Your task to perform on an android device: Go to Amazon Image 0: 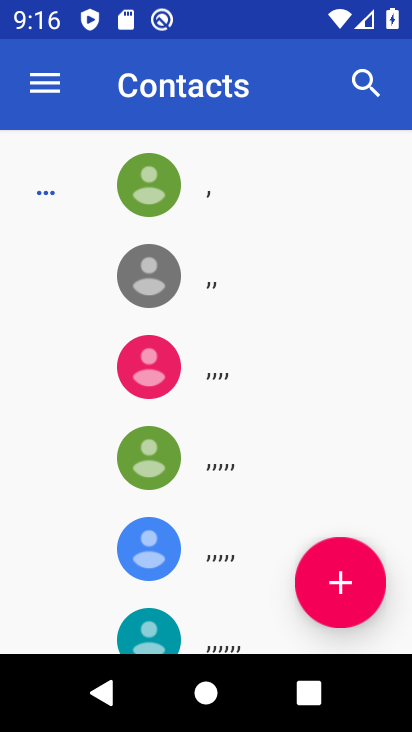
Step 0: press home button
Your task to perform on an android device: Go to Amazon Image 1: 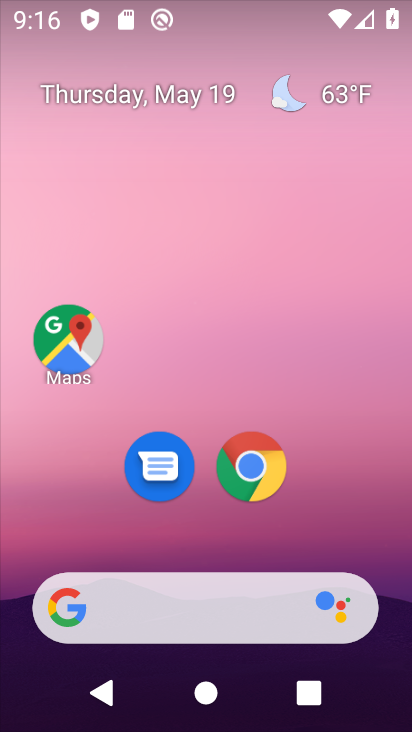
Step 1: drag from (388, 601) to (246, 3)
Your task to perform on an android device: Go to Amazon Image 2: 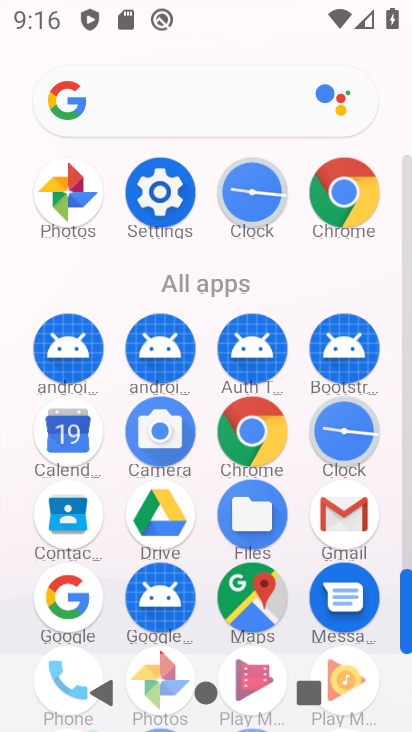
Step 2: click (350, 201)
Your task to perform on an android device: Go to Amazon Image 3: 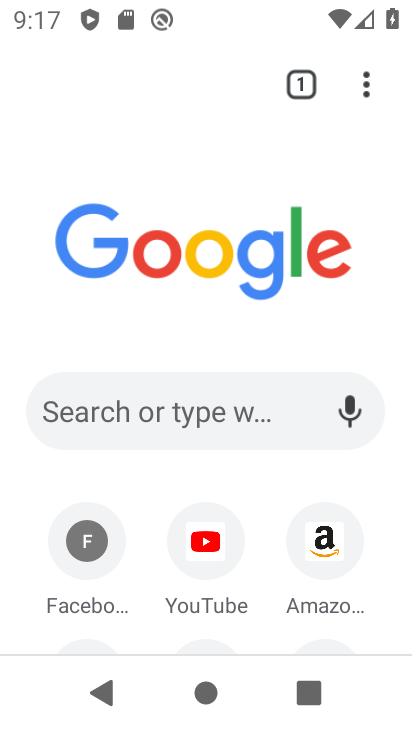
Step 3: click (326, 536)
Your task to perform on an android device: Go to Amazon Image 4: 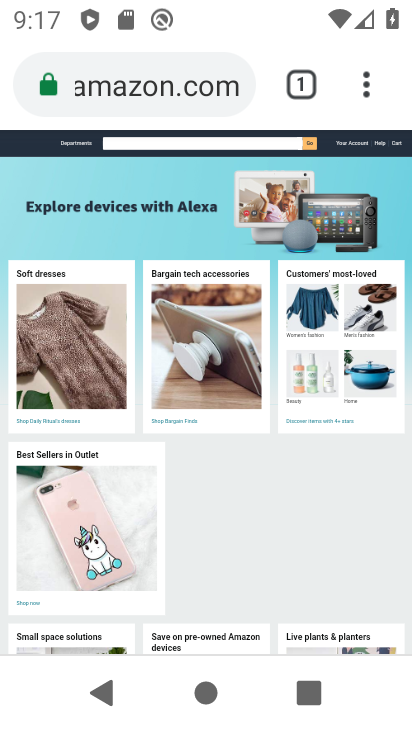
Step 4: task complete